Your task to perform on an android device: Open calendar and show me the fourth week of next month Image 0: 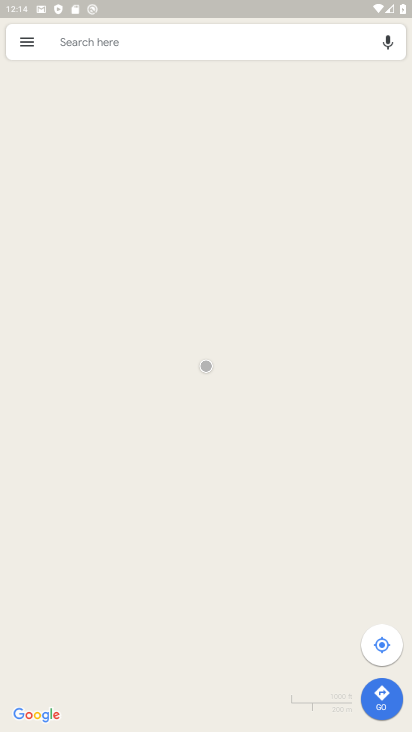
Step 0: press home button
Your task to perform on an android device: Open calendar and show me the fourth week of next month Image 1: 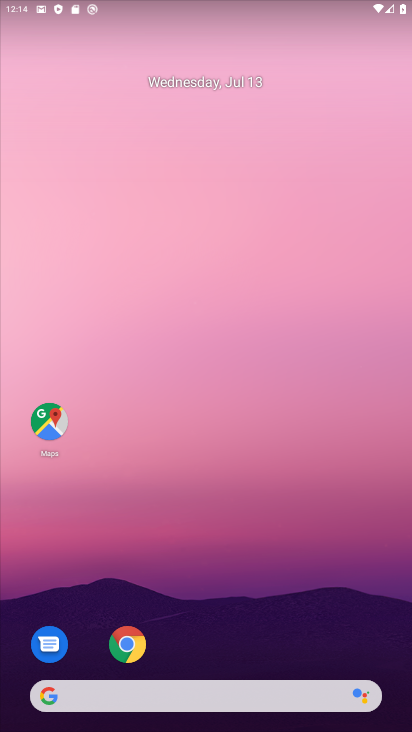
Step 1: drag from (180, 573) to (236, 94)
Your task to perform on an android device: Open calendar and show me the fourth week of next month Image 2: 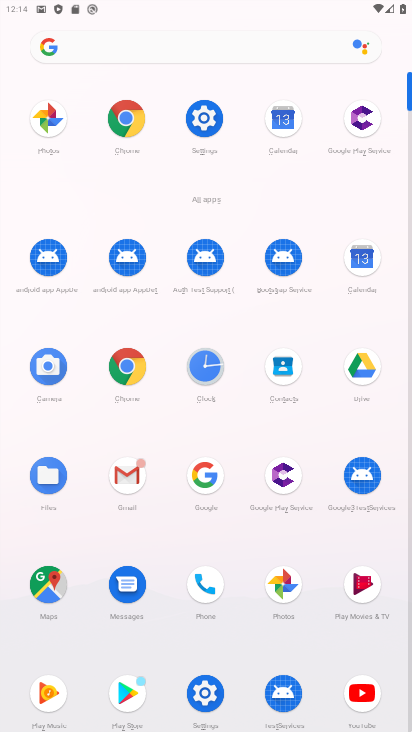
Step 2: click (286, 135)
Your task to perform on an android device: Open calendar and show me the fourth week of next month Image 3: 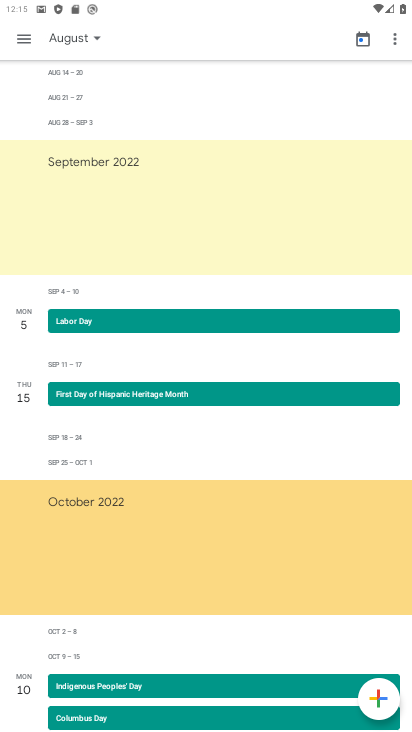
Step 3: click (17, 40)
Your task to perform on an android device: Open calendar and show me the fourth week of next month Image 4: 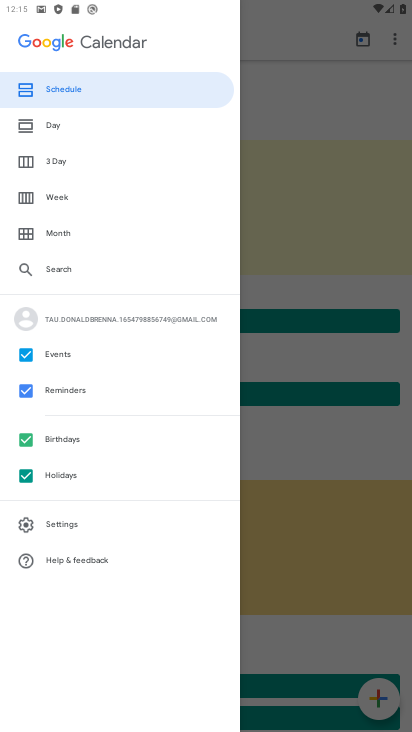
Step 4: click (56, 198)
Your task to perform on an android device: Open calendar and show me the fourth week of next month Image 5: 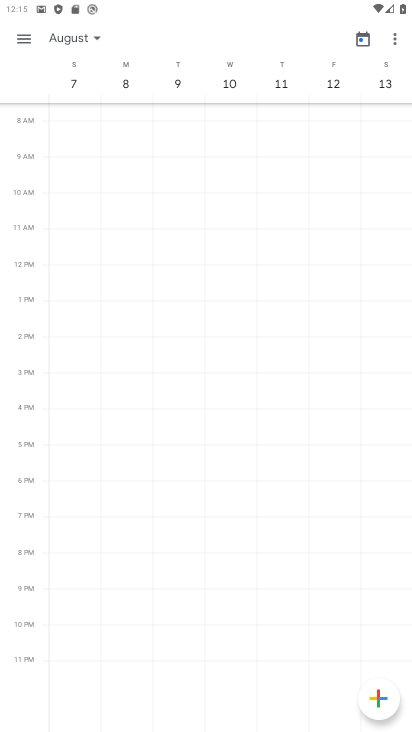
Step 5: click (72, 46)
Your task to perform on an android device: Open calendar and show me the fourth week of next month Image 6: 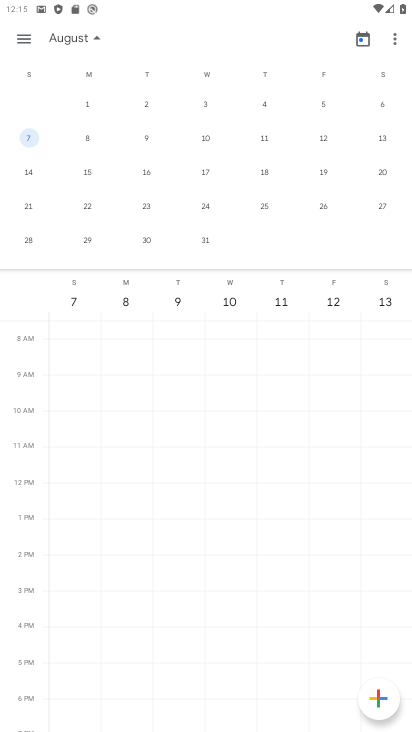
Step 6: click (29, 205)
Your task to perform on an android device: Open calendar and show me the fourth week of next month Image 7: 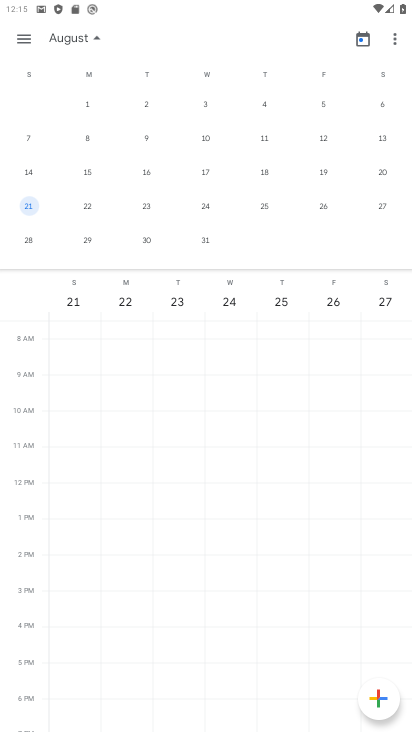
Step 7: task complete